Your task to perform on an android device: Set the phone to "Do not disturb". Image 0: 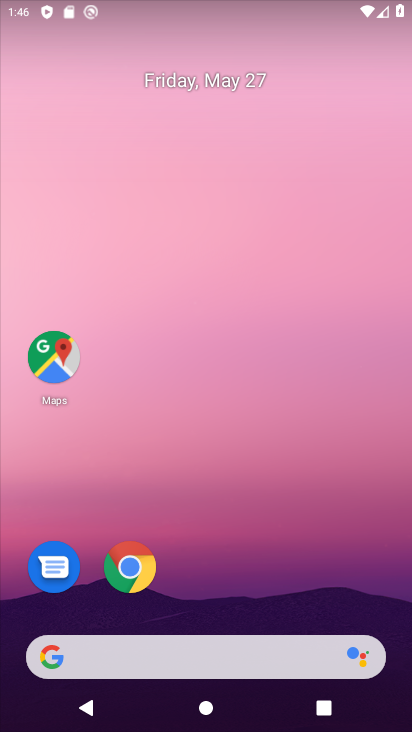
Step 0: drag from (186, 10) to (206, 441)
Your task to perform on an android device: Set the phone to "Do not disturb". Image 1: 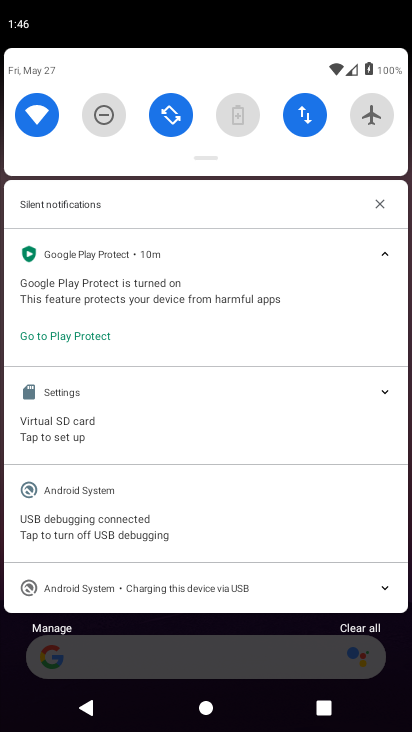
Step 1: click (98, 122)
Your task to perform on an android device: Set the phone to "Do not disturb". Image 2: 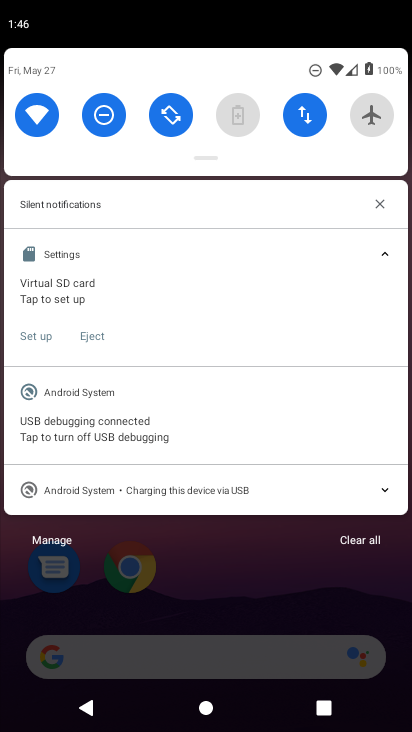
Step 2: task complete